Your task to perform on an android device: set the stopwatch Image 0: 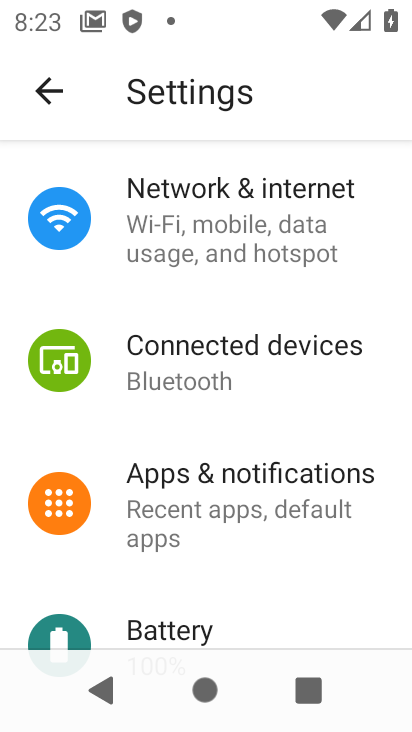
Step 0: press home button
Your task to perform on an android device: set the stopwatch Image 1: 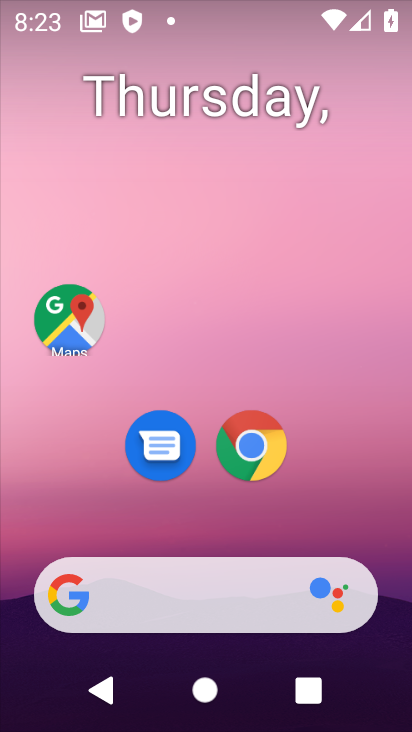
Step 1: drag from (19, 692) to (221, 230)
Your task to perform on an android device: set the stopwatch Image 2: 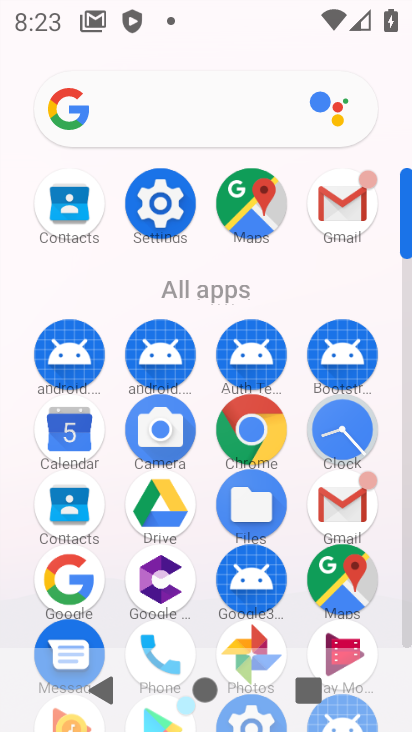
Step 2: click (336, 422)
Your task to perform on an android device: set the stopwatch Image 3: 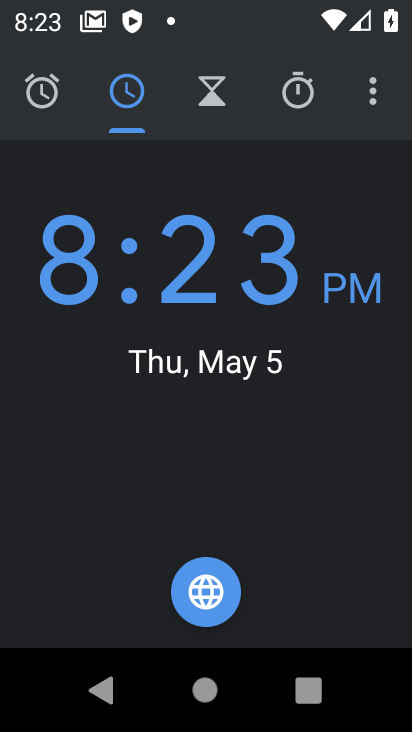
Step 3: click (291, 91)
Your task to perform on an android device: set the stopwatch Image 4: 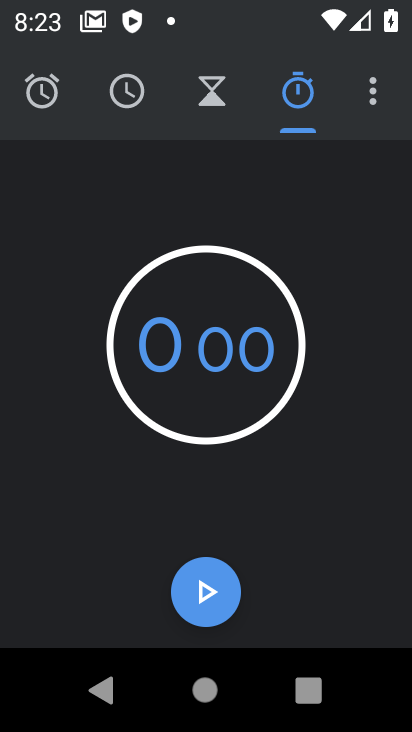
Step 4: click (204, 586)
Your task to perform on an android device: set the stopwatch Image 5: 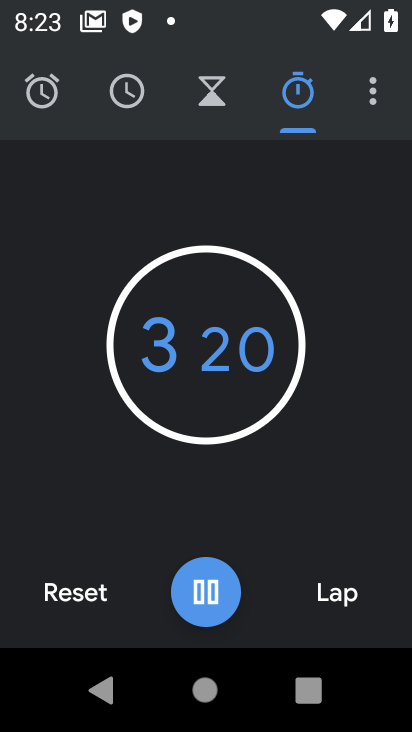
Step 5: task complete